Your task to perform on an android device: View the shopping cart on costco.com. Search for dell xps on costco.com, select the first entry, add it to the cart, then select checkout. Image 0: 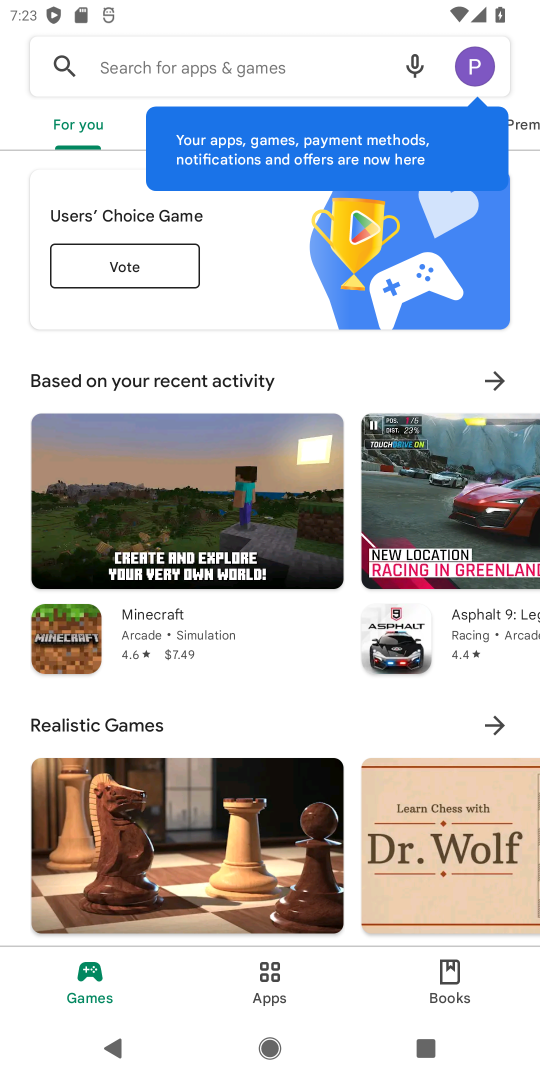
Step 0: press home button
Your task to perform on an android device: View the shopping cart on costco.com. Search for dell xps on costco.com, select the first entry, add it to the cart, then select checkout. Image 1: 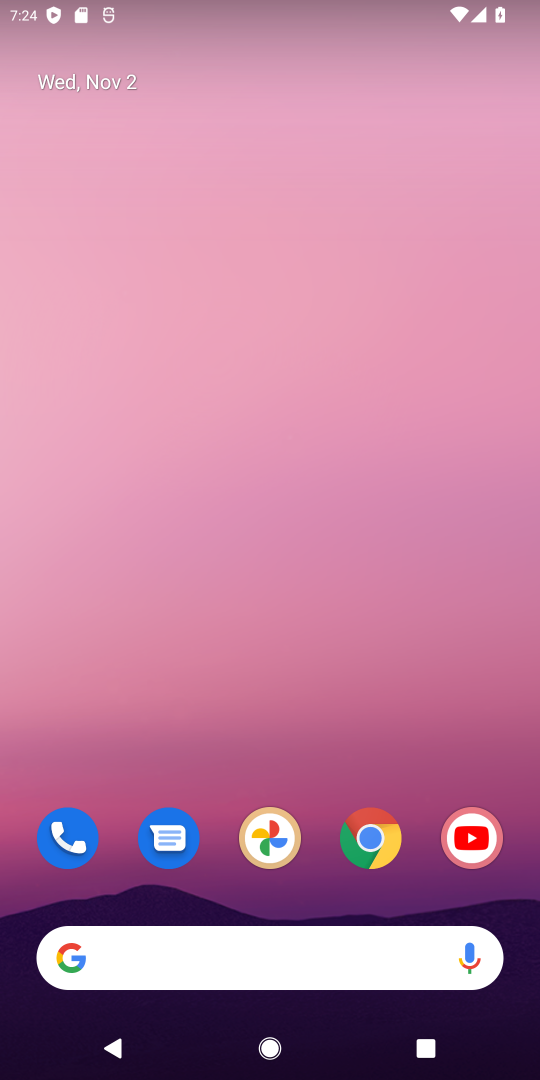
Step 1: click (359, 835)
Your task to perform on an android device: View the shopping cart on costco.com. Search for dell xps on costco.com, select the first entry, add it to the cart, then select checkout. Image 2: 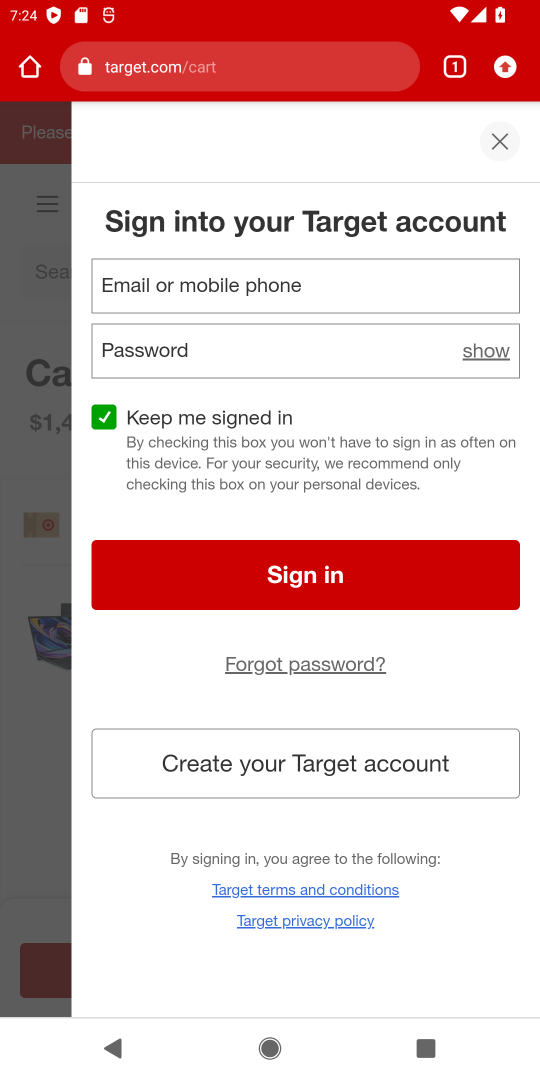
Step 2: click (264, 75)
Your task to perform on an android device: View the shopping cart on costco.com. Search for dell xps on costco.com, select the first entry, add it to the cart, then select checkout. Image 3: 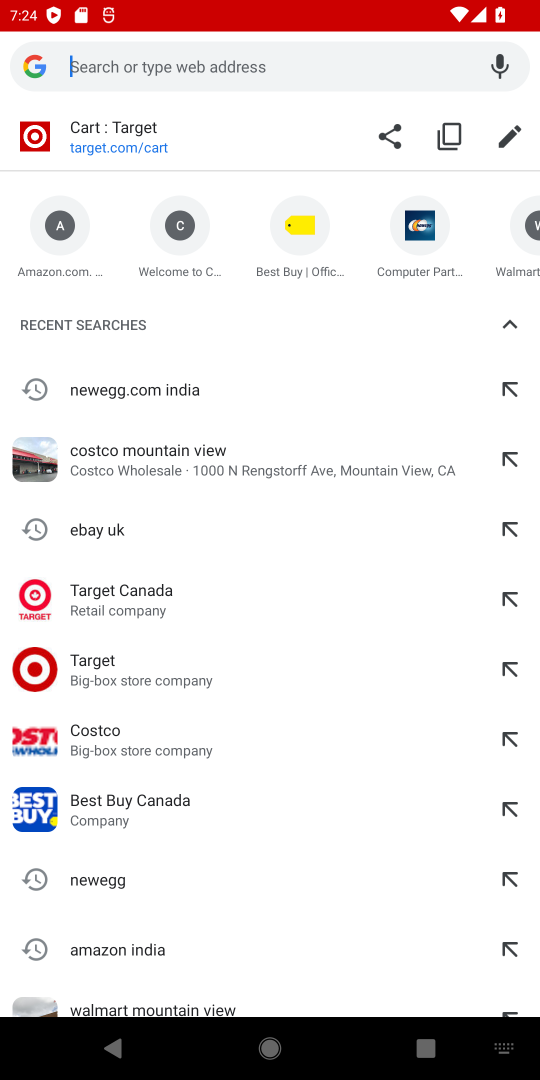
Step 3: type "costco.com"
Your task to perform on an android device: View the shopping cart on costco.com. Search for dell xps on costco.com, select the first entry, add it to the cart, then select checkout. Image 4: 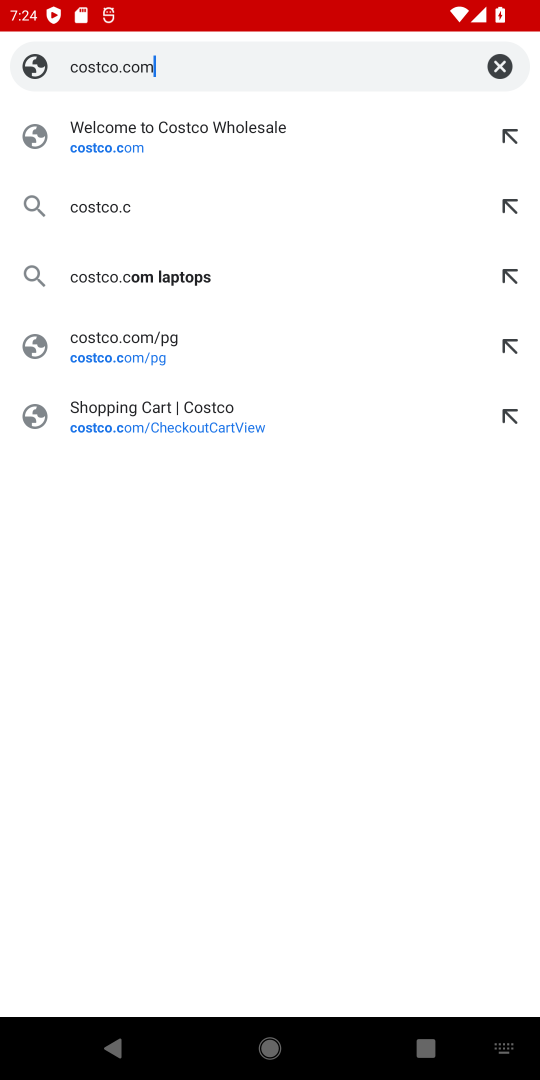
Step 4: type ""
Your task to perform on an android device: View the shopping cart on costco.com. Search for dell xps on costco.com, select the first entry, add it to the cart, then select checkout. Image 5: 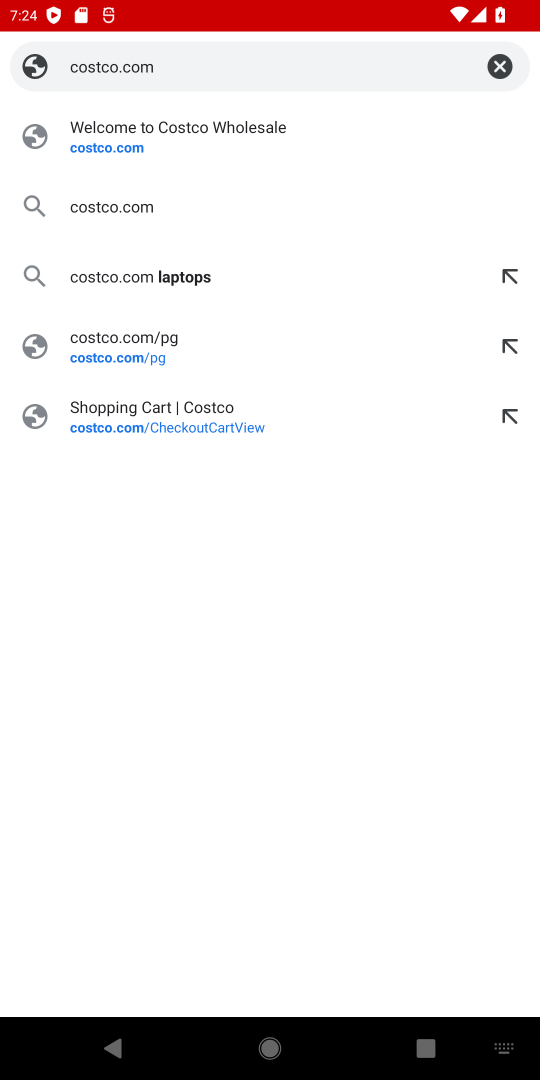
Step 5: press enter
Your task to perform on an android device: View the shopping cart on costco.com. Search for dell xps on costco.com, select the first entry, add it to the cart, then select checkout. Image 6: 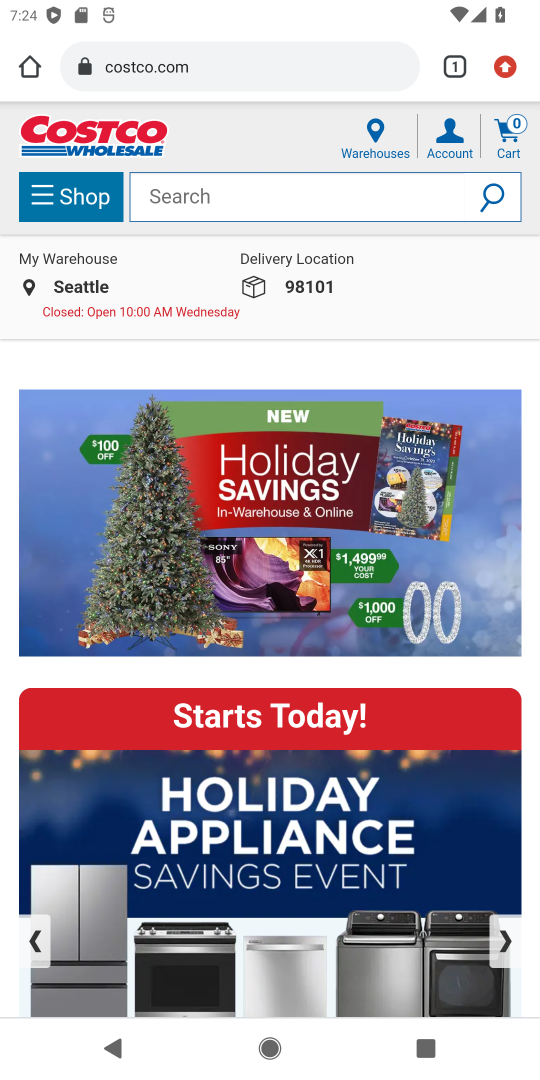
Step 6: click (499, 141)
Your task to perform on an android device: View the shopping cart on costco.com. Search for dell xps on costco.com, select the first entry, add it to the cart, then select checkout. Image 7: 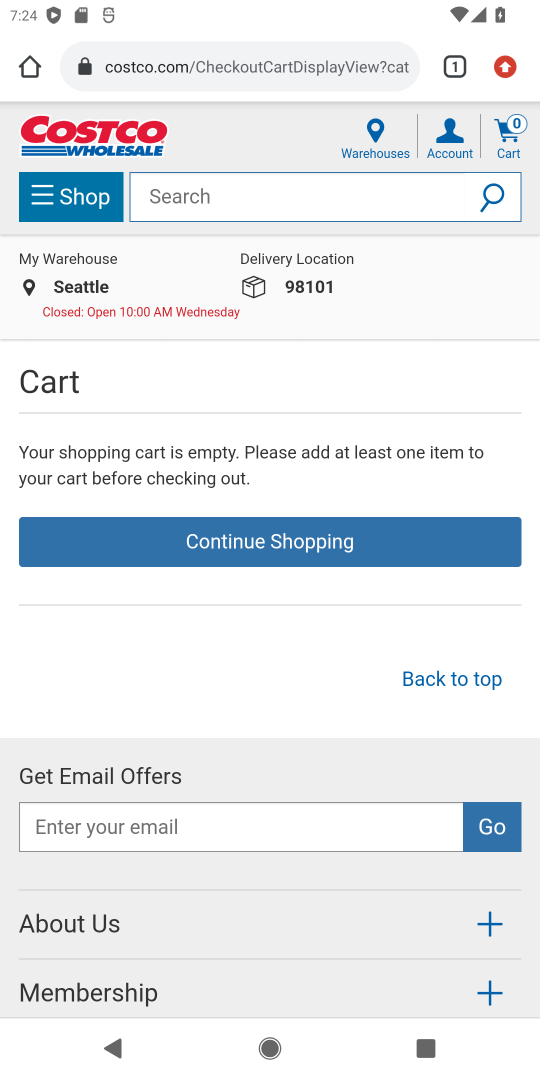
Step 7: click (223, 198)
Your task to perform on an android device: View the shopping cart on costco.com. Search for dell xps on costco.com, select the first entry, add it to the cart, then select checkout. Image 8: 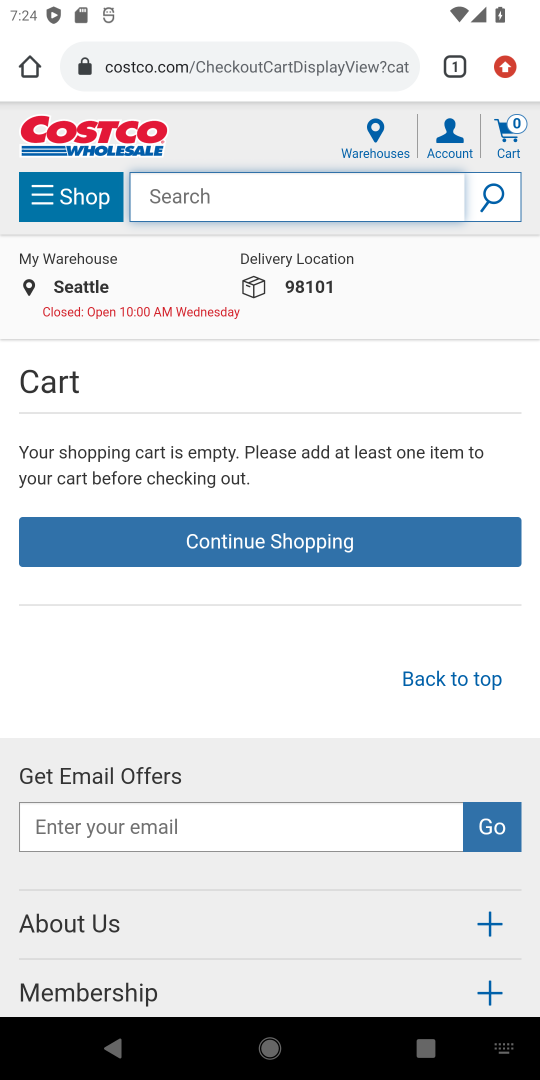
Step 8: type "dell xps"
Your task to perform on an android device: View the shopping cart on costco.com. Search for dell xps on costco.com, select the first entry, add it to the cart, then select checkout. Image 9: 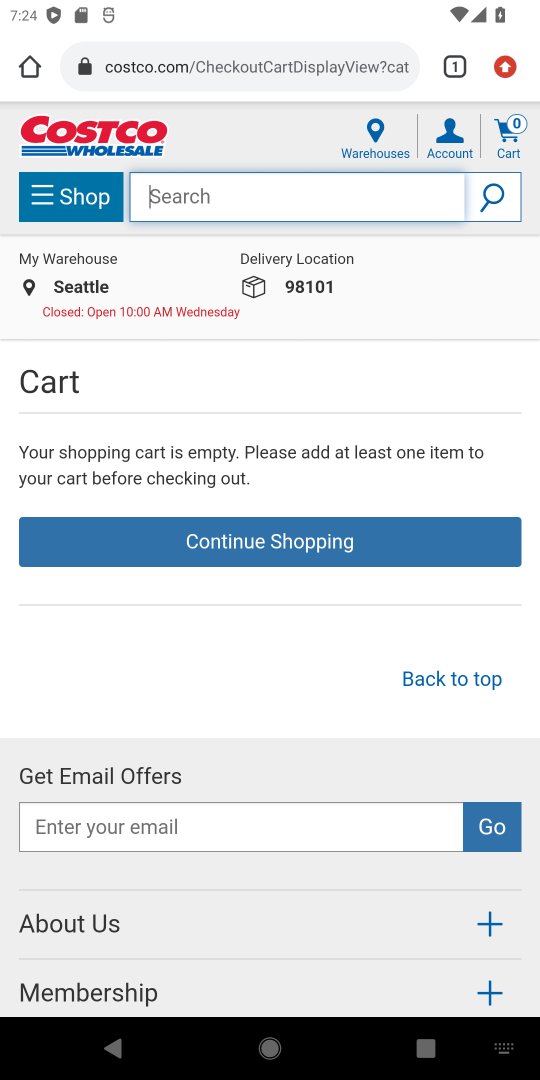
Step 9: type ""
Your task to perform on an android device: View the shopping cart on costco.com. Search for dell xps on costco.com, select the first entry, add it to the cart, then select checkout. Image 10: 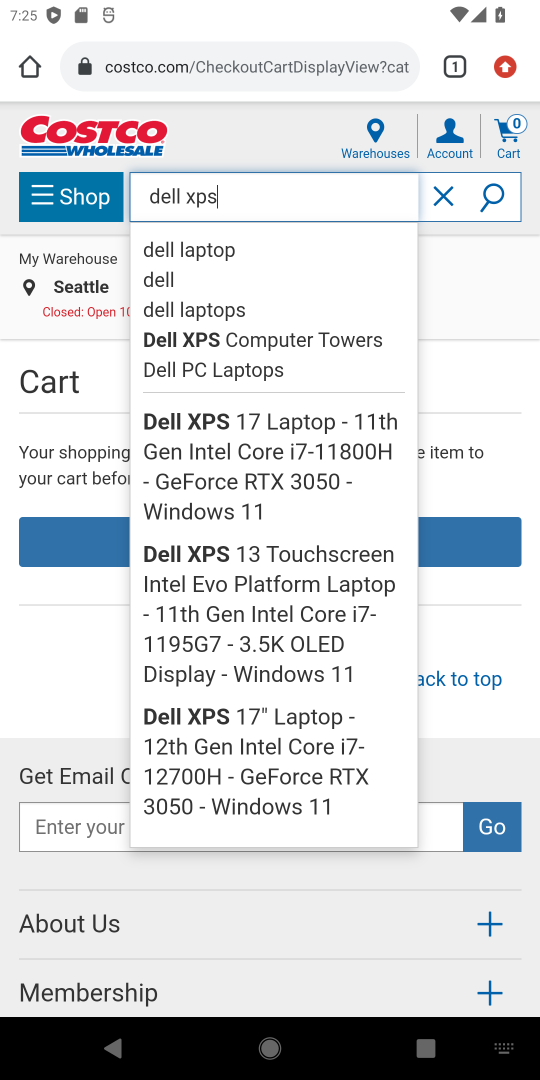
Step 10: press enter
Your task to perform on an android device: View the shopping cart on costco.com. Search for dell xps on costco.com, select the first entry, add it to the cart, then select checkout. Image 11: 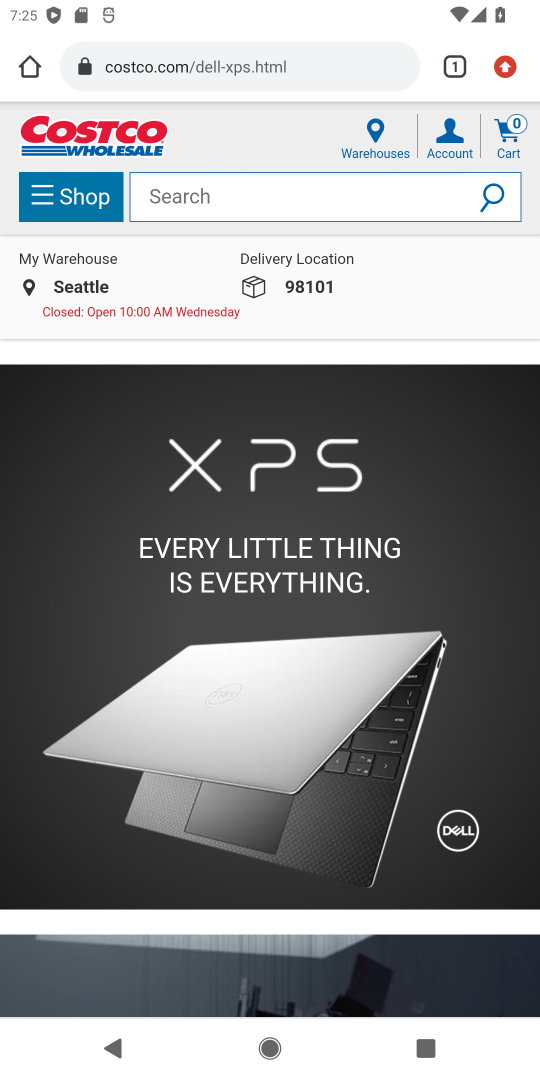
Step 11: drag from (418, 880) to (369, 104)
Your task to perform on an android device: View the shopping cart on costco.com. Search for dell xps on costco.com, select the first entry, add it to the cart, then select checkout. Image 12: 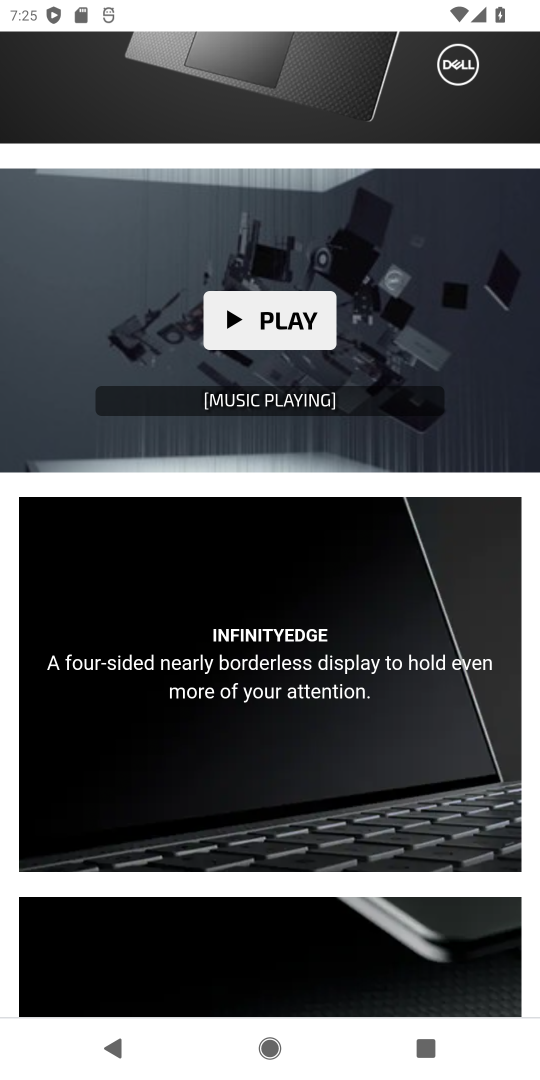
Step 12: drag from (380, 811) to (326, 227)
Your task to perform on an android device: View the shopping cart on costco.com. Search for dell xps on costco.com, select the first entry, add it to the cart, then select checkout. Image 13: 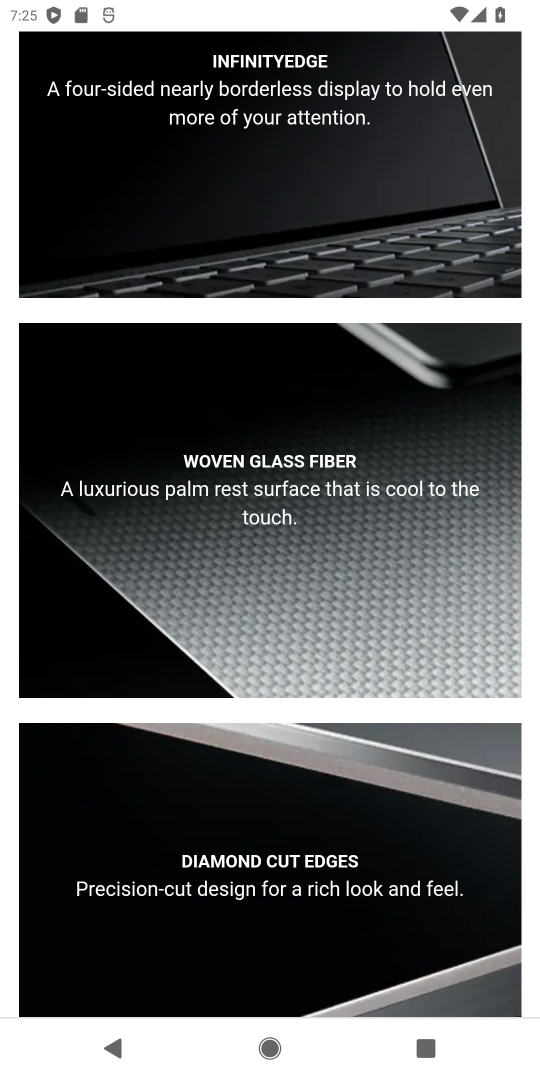
Step 13: drag from (325, 902) to (265, 293)
Your task to perform on an android device: View the shopping cart on costco.com. Search for dell xps on costco.com, select the first entry, add it to the cart, then select checkout. Image 14: 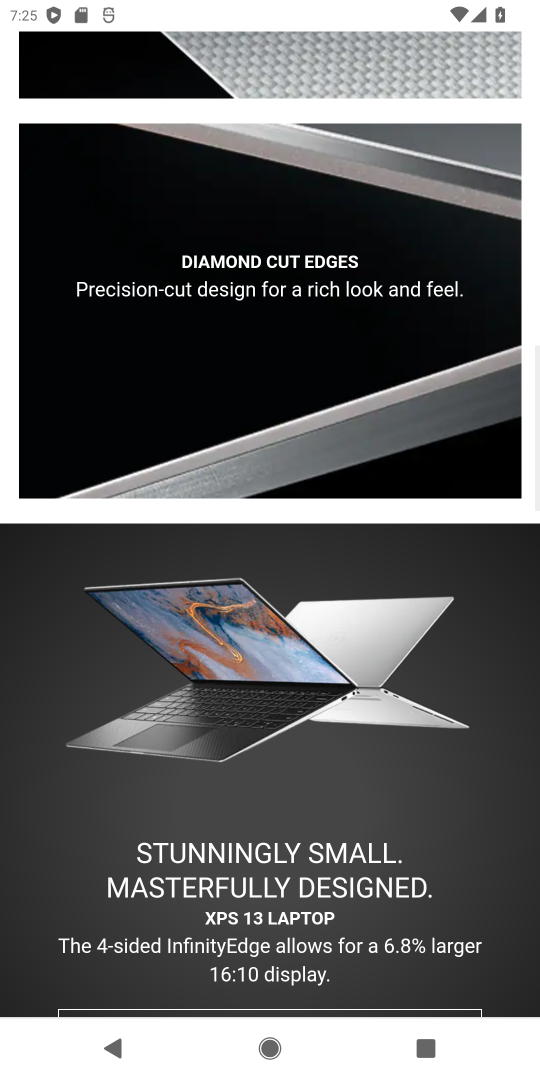
Step 14: drag from (343, 941) to (301, 633)
Your task to perform on an android device: View the shopping cart on costco.com. Search for dell xps on costco.com, select the first entry, add it to the cart, then select checkout. Image 15: 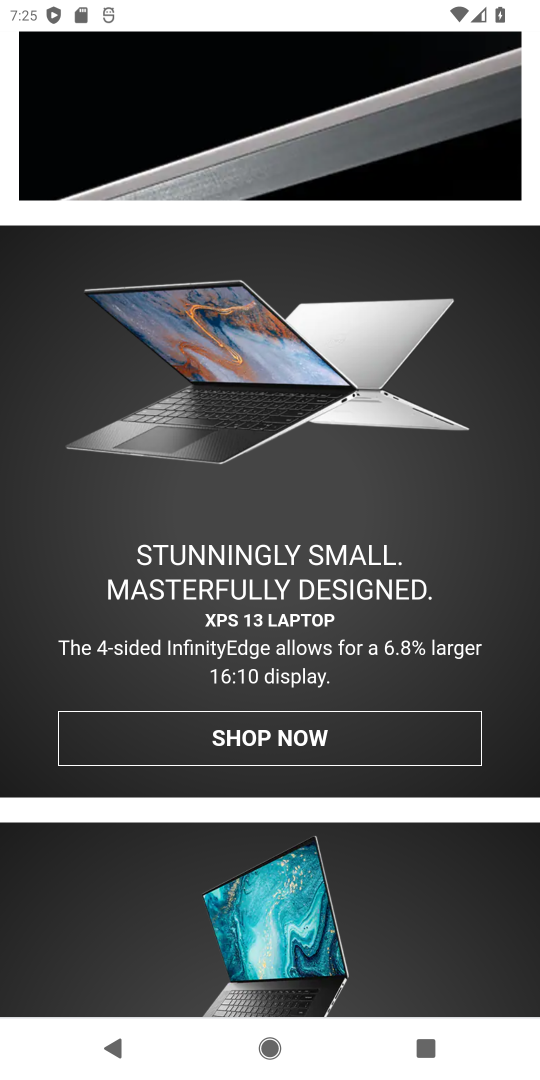
Step 15: click (320, 742)
Your task to perform on an android device: View the shopping cart on costco.com. Search for dell xps on costco.com, select the first entry, add it to the cart, then select checkout. Image 16: 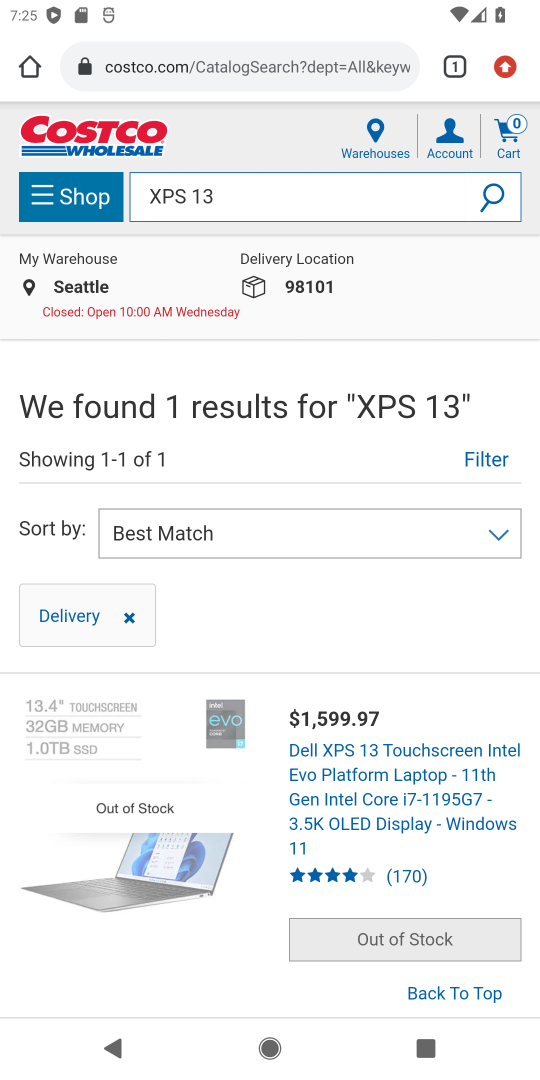
Step 16: click (407, 807)
Your task to perform on an android device: View the shopping cart on costco.com. Search for dell xps on costco.com, select the first entry, add it to the cart, then select checkout. Image 17: 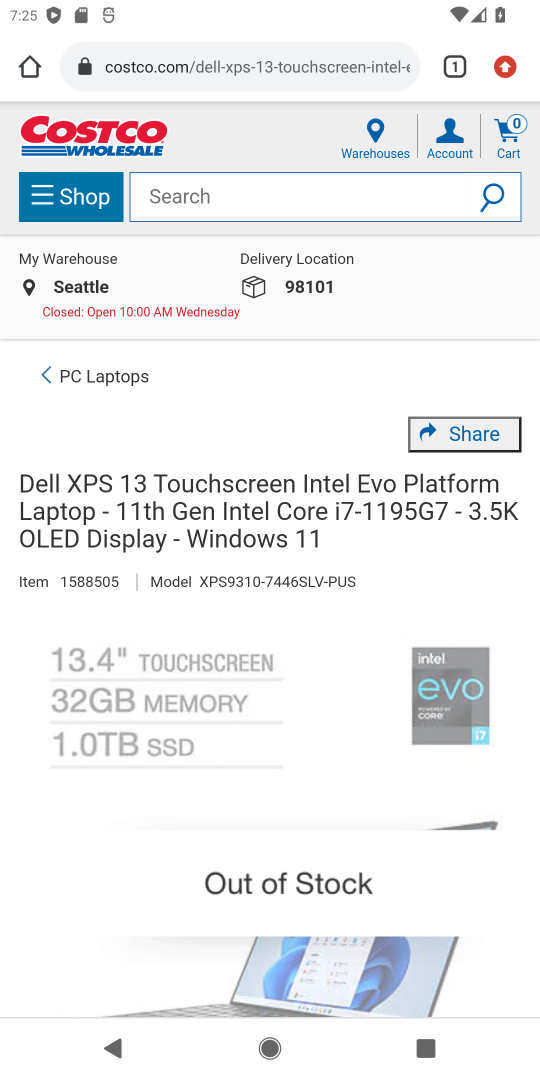
Step 17: task complete